Your task to perform on an android device: Open Google Chrome and click the shortcut for Amazon.com Image 0: 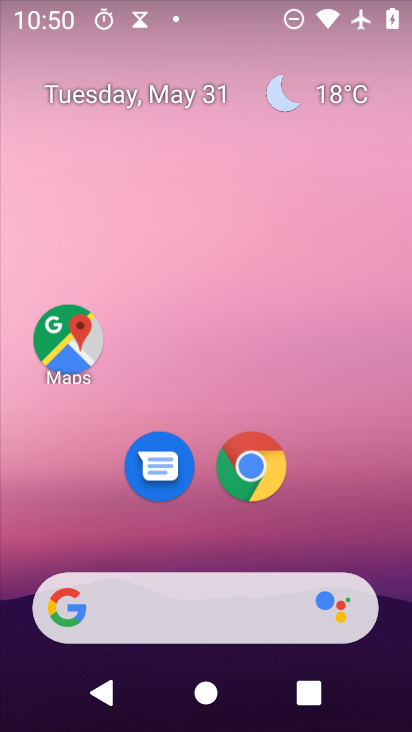
Step 0: drag from (353, 517) to (220, 37)
Your task to perform on an android device: Open Google Chrome and click the shortcut for Amazon.com Image 1: 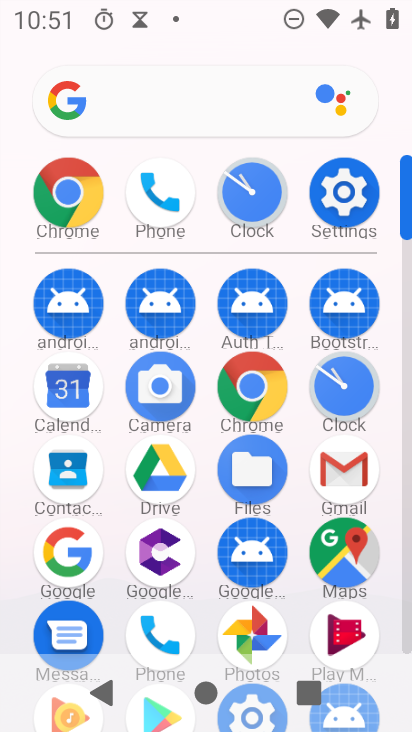
Step 1: drag from (8, 573) to (11, 186)
Your task to perform on an android device: Open Google Chrome and click the shortcut for Amazon.com Image 2: 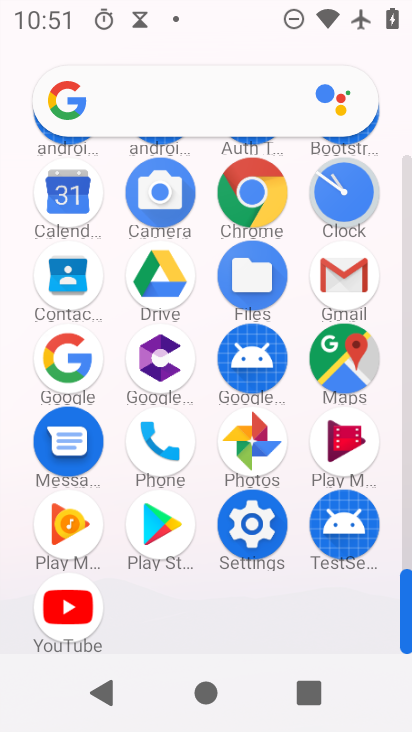
Step 2: click (256, 198)
Your task to perform on an android device: Open Google Chrome and click the shortcut for Amazon.com Image 3: 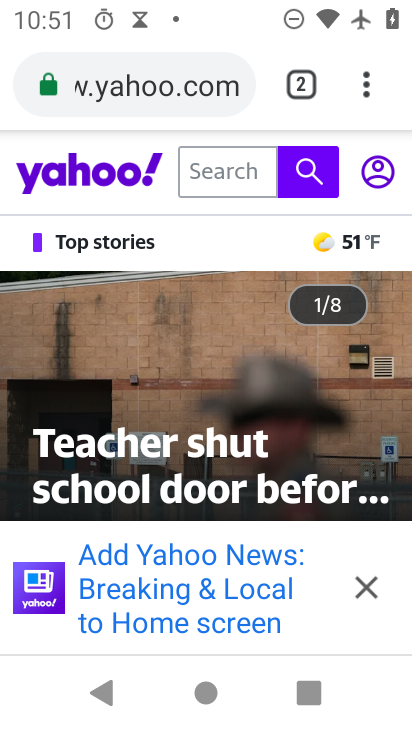
Step 3: click (174, 88)
Your task to perform on an android device: Open Google Chrome and click the shortcut for Amazon.com Image 4: 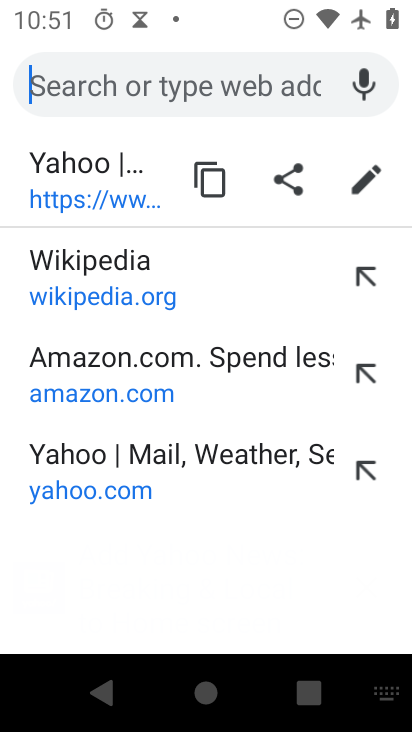
Step 4: type "Amazon.com"
Your task to perform on an android device: Open Google Chrome and click the shortcut for Amazon.com Image 5: 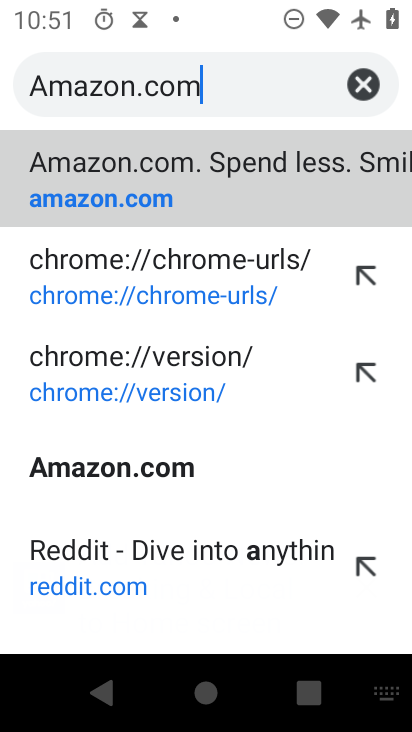
Step 5: type ""
Your task to perform on an android device: Open Google Chrome and click the shortcut for Amazon.com Image 6: 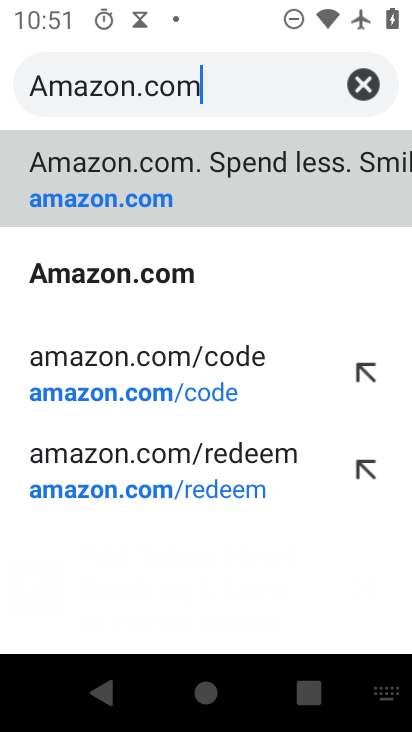
Step 6: click (209, 190)
Your task to perform on an android device: Open Google Chrome and click the shortcut for Amazon.com Image 7: 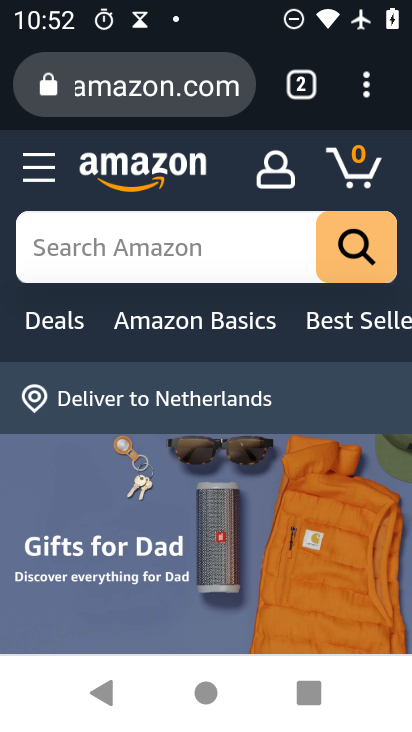
Step 7: drag from (365, 81) to (247, 332)
Your task to perform on an android device: Open Google Chrome and click the shortcut for Amazon.com Image 8: 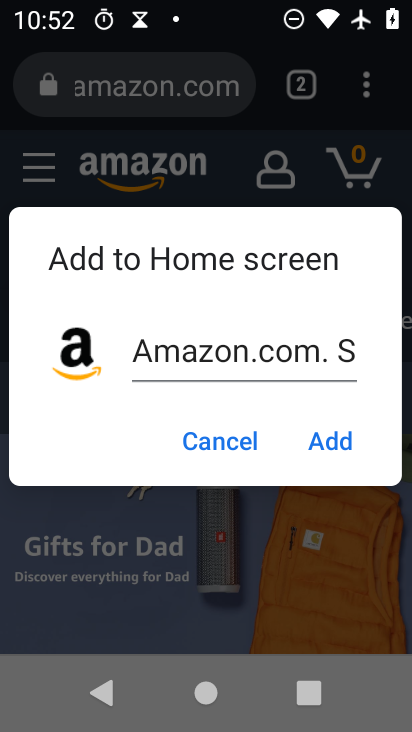
Step 8: click (320, 439)
Your task to perform on an android device: Open Google Chrome and click the shortcut for Amazon.com Image 9: 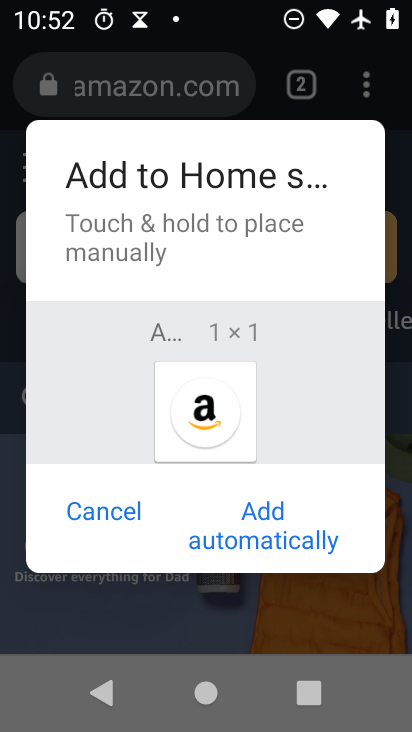
Step 9: click (279, 521)
Your task to perform on an android device: Open Google Chrome and click the shortcut for Amazon.com Image 10: 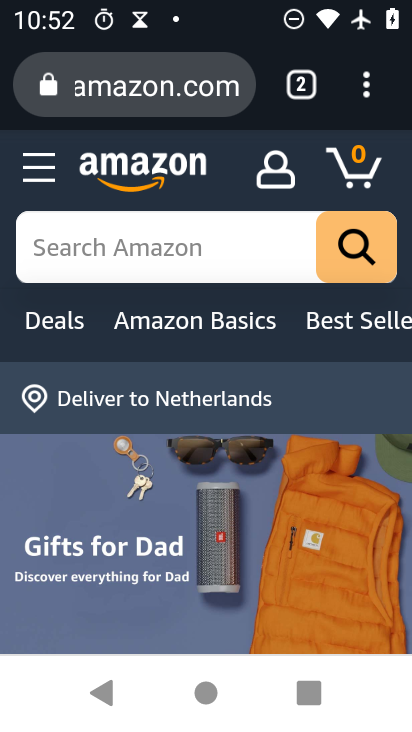
Step 10: task complete